Your task to perform on an android device: set default search engine in the chrome app Image 0: 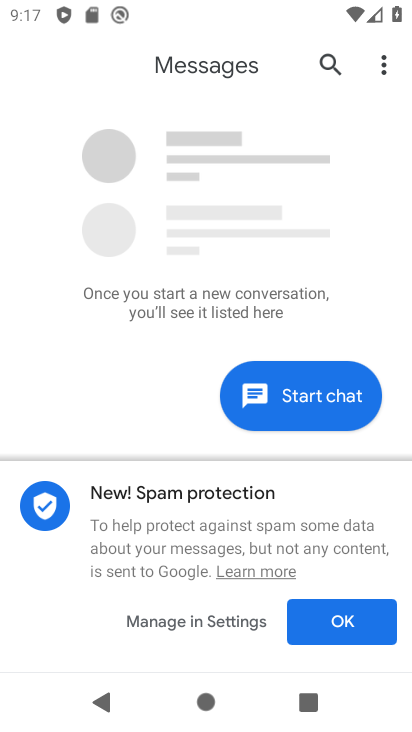
Step 0: press home button
Your task to perform on an android device: set default search engine in the chrome app Image 1: 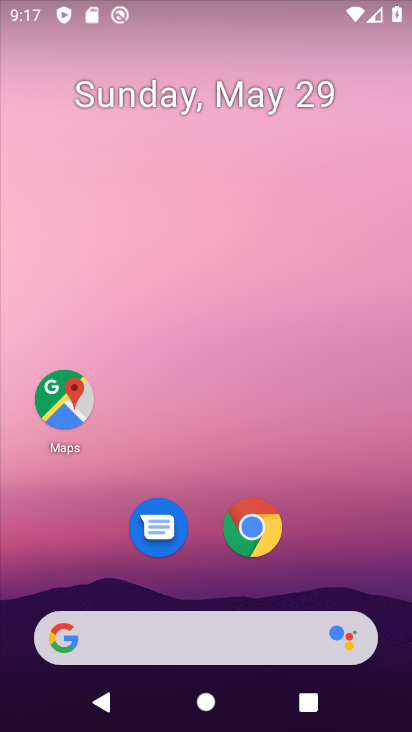
Step 1: click (257, 534)
Your task to perform on an android device: set default search engine in the chrome app Image 2: 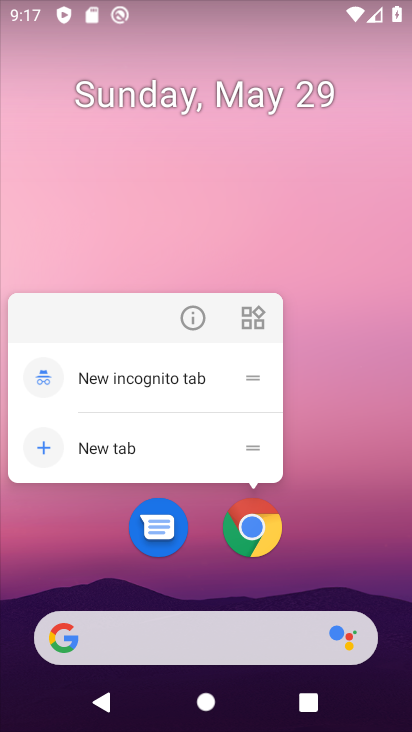
Step 2: click (247, 531)
Your task to perform on an android device: set default search engine in the chrome app Image 3: 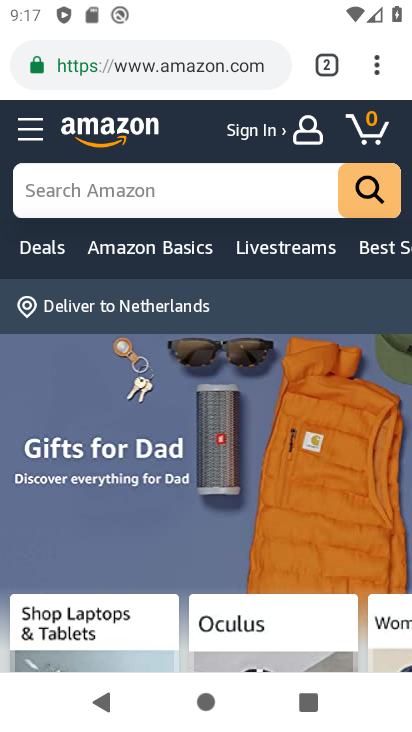
Step 3: drag from (375, 73) to (232, 585)
Your task to perform on an android device: set default search engine in the chrome app Image 4: 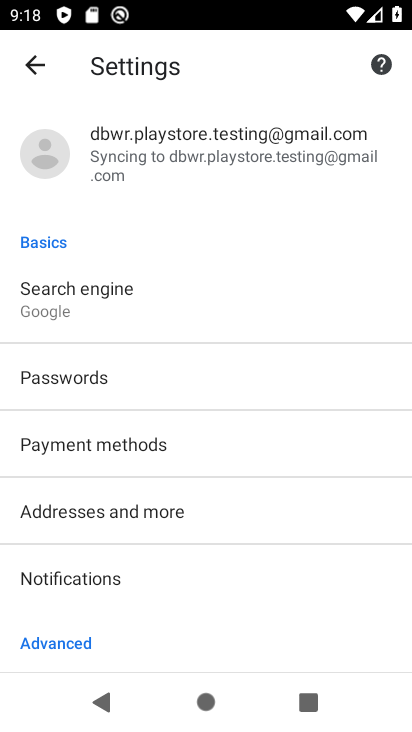
Step 4: drag from (210, 616) to (319, 194)
Your task to perform on an android device: set default search engine in the chrome app Image 5: 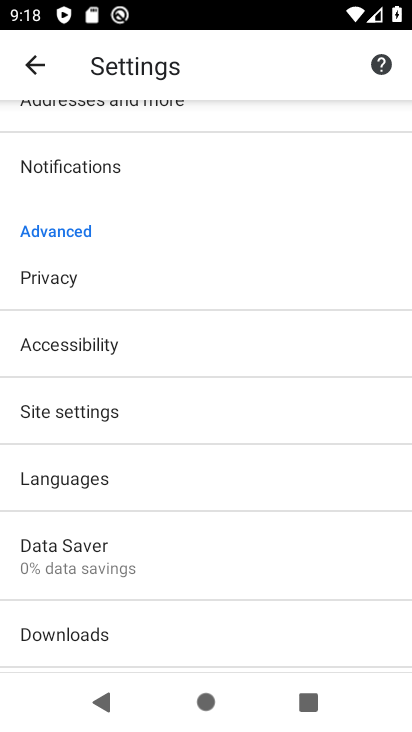
Step 5: drag from (299, 212) to (196, 565)
Your task to perform on an android device: set default search engine in the chrome app Image 6: 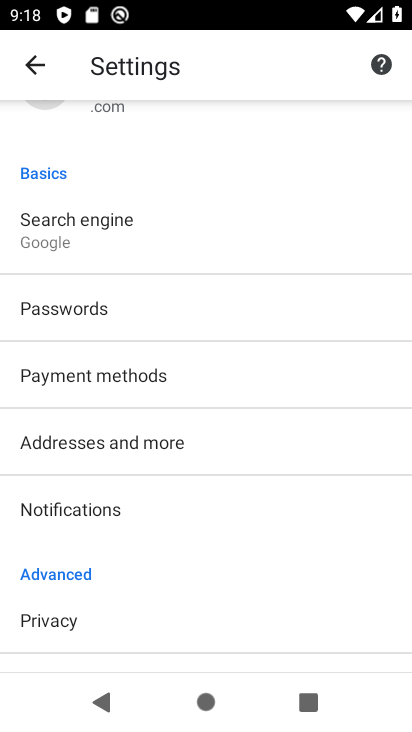
Step 6: click (79, 232)
Your task to perform on an android device: set default search engine in the chrome app Image 7: 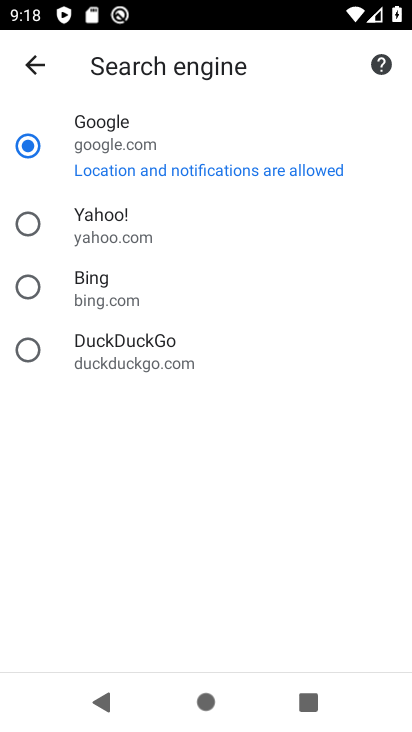
Step 7: click (33, 219)
Your task to perform on an android device: set default search engine in the chrome app Image 8: 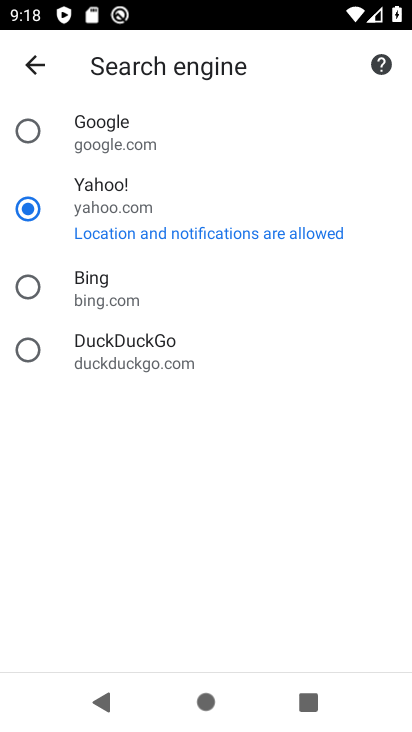
Step 8: task complete